Your task to perform on an android device: turn off translation in the chrome app Image 0: 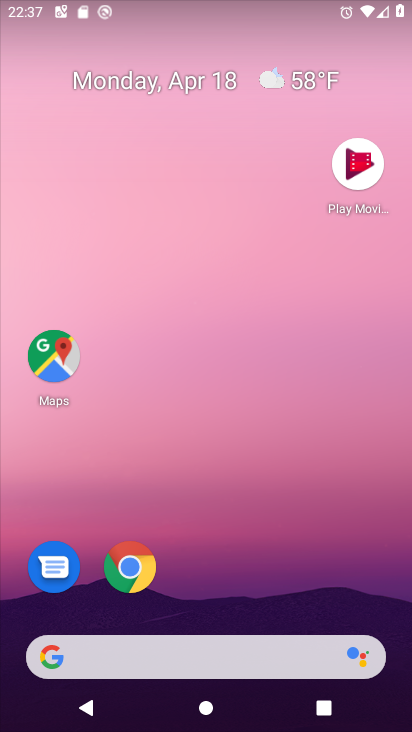
Step 0: drag from (173, 565) to (109, 244)
Your task to perform on an android device: turn off translation in the chrome app Image 1: 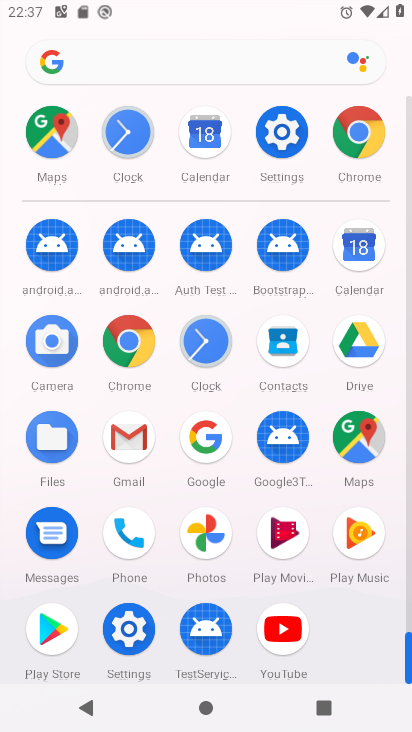
Step 1: click (123, 338)
Your task to perform on an android device: turn off translation in the chrome app Image 2: 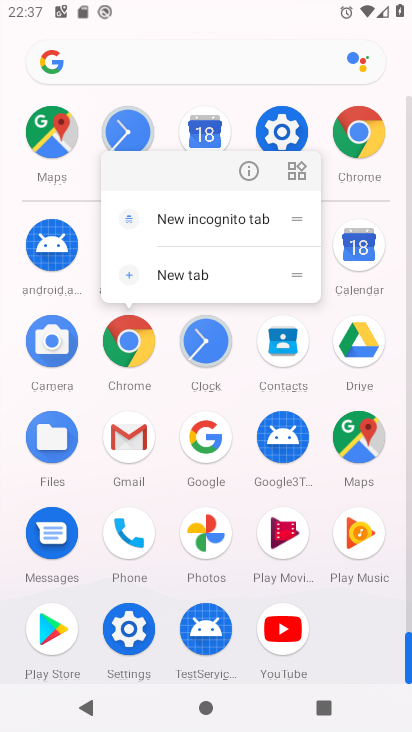
Step 2: click (248, 170)
Your task to perform on an android device: turn off translation in the chrome app Image 3: 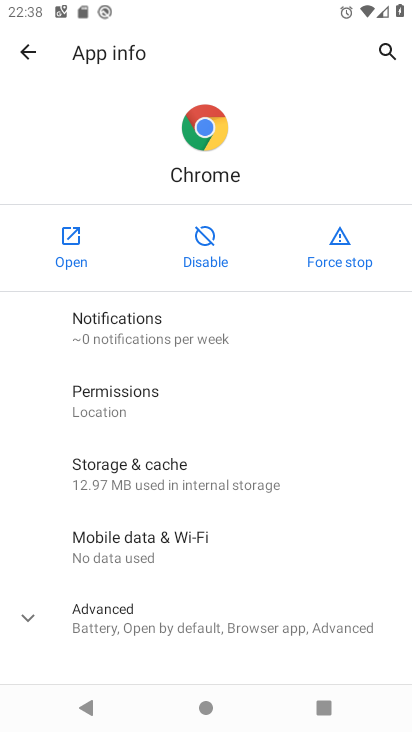
Step 3: click (71, 234)
Your task to perform on an android device: turn off translation in the chrome app Image 4: 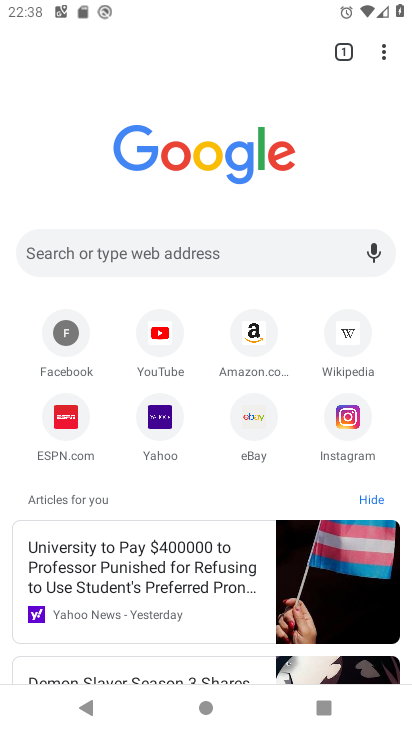
Step 4: click (389, 54)
Your task to perform on an android device: turn off translation in the chrome app Image 5: 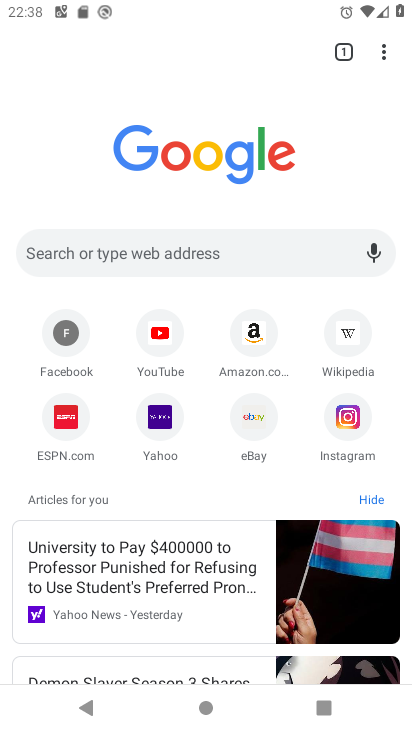
Step 5: click (388, 43)
Your task to perform on an android device: turn off translation in the chrome app Image 6: 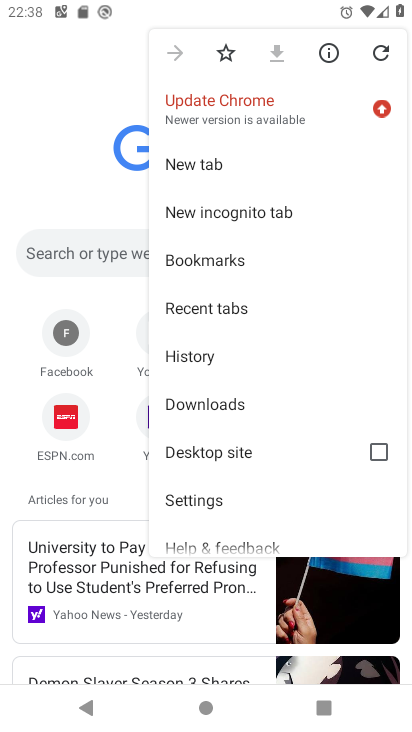
Step 6: click (234, 495)
Your task to perform on an android device: turn off translation in the chrome app Image 7: 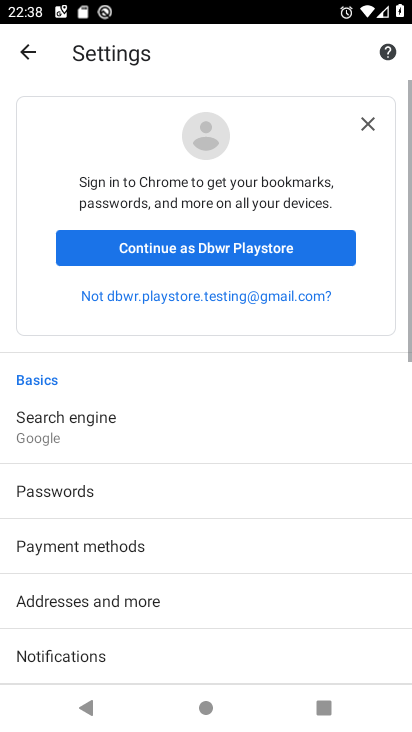
Step 7: drag from (191, 515) to (252, 4)
Your task to perform on an android device: turn off translation in the chrome app Image 8: 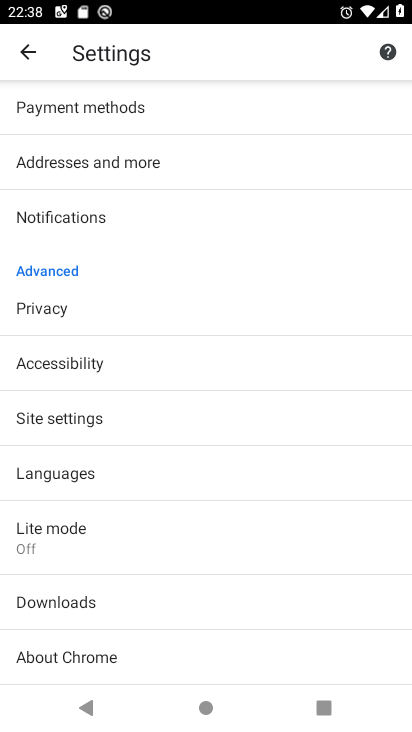
Step 8: click (72, 476)
Your task to perform on an android device: turn off translation in the chrome app Image 9: 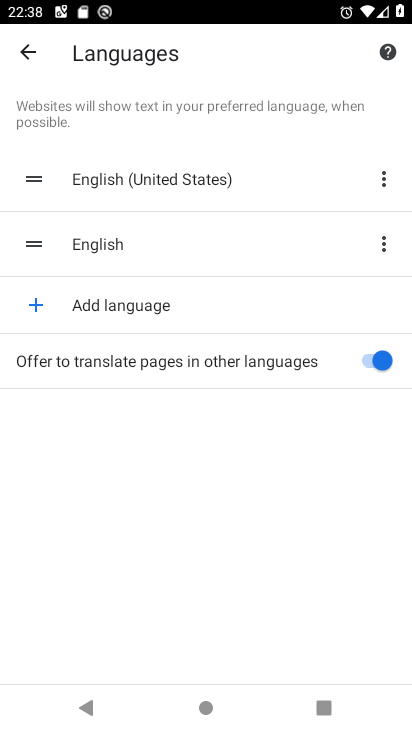
Step 9: click (353, 352)
Your task to perform on an android device: turn off translation in the chrome app Image 10: 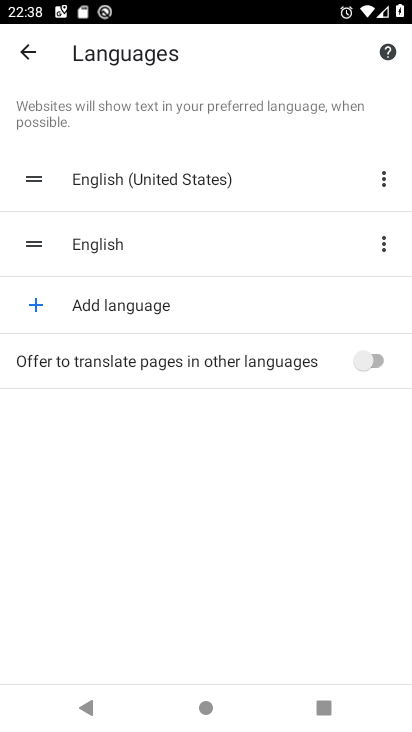
Step 10: task complete